Your task to perform on an android device: allow cookies in the chrome app Image 0: 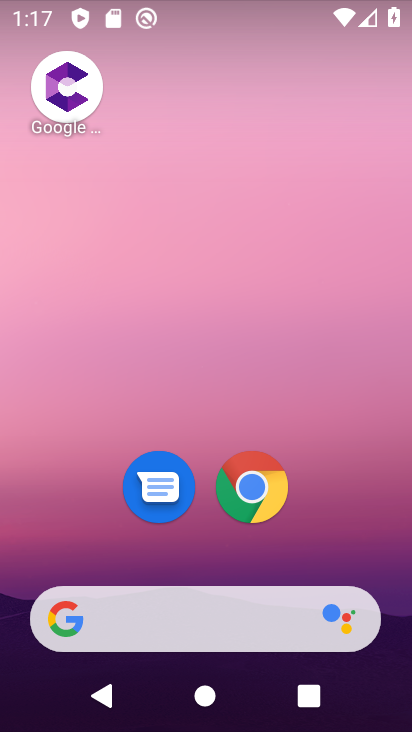
Step 0: click (246, 498)
Your task to perform on an android device: allow cookies in the chrome app Image 1: 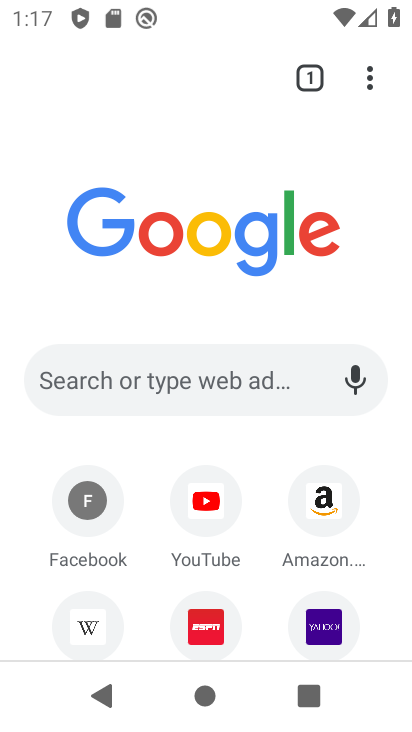
Step 1: click (370, 79)
Your task to perform on an android device: allow cookies in the chrome app Image 2: 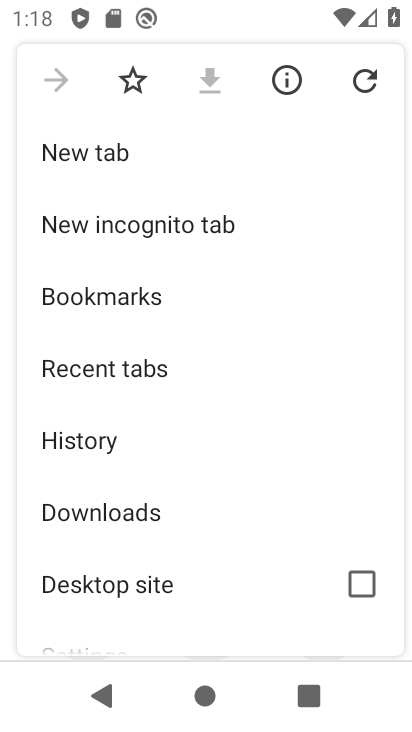
Step 2: drag from (222, 564) to (171, 66)
Your task to perform on an android device: allow cookies in the chrome app Image 3: 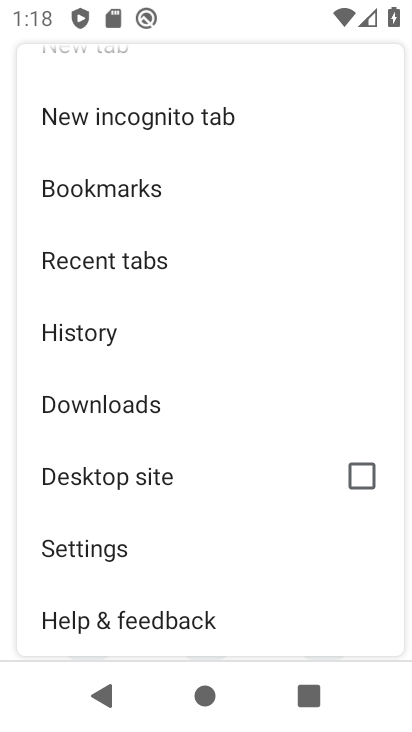
Step 3: click (125, 550)
Your task to perform on an android device: allow cookies in the chrome app Image 4: 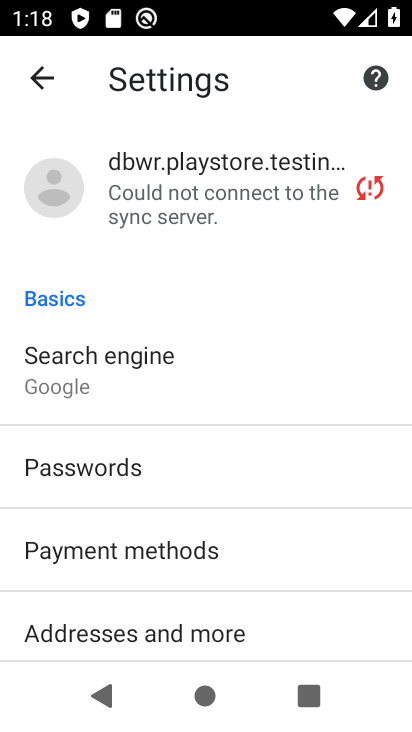
Step 4: drag from (148, 570) to (195, 102)
Your task to perform on an android device: allow cookies in the chrome app Image 5: 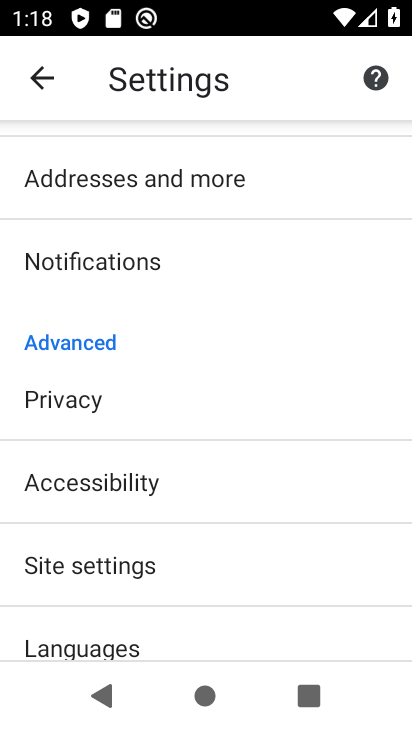
Step 5: click (136, 563)
Your task to perform on an android device: allow cookies in the chrome app Image 6: 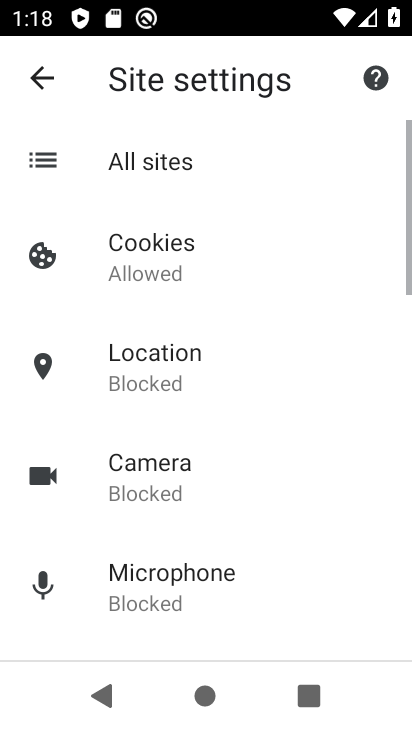
Step 6: click (111, 242)
Your task to perform on an android device: allow cookies in the chrome app Image 7: 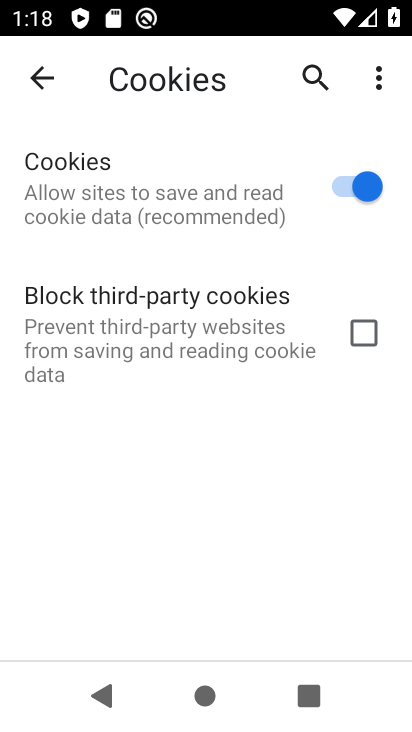
Step 7: task complete